Your task to perform on an android device: turn on showing notifications on the lock screen Image 0: 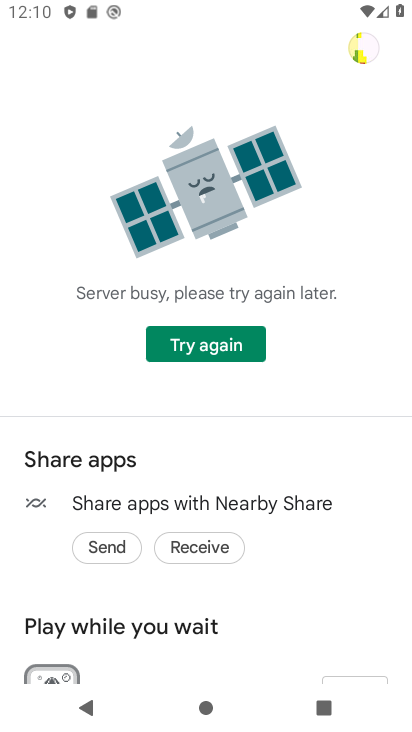
Step 0: press home button
Your task to perform on an android device: turn on showing notifications on the lock screen Image 1: 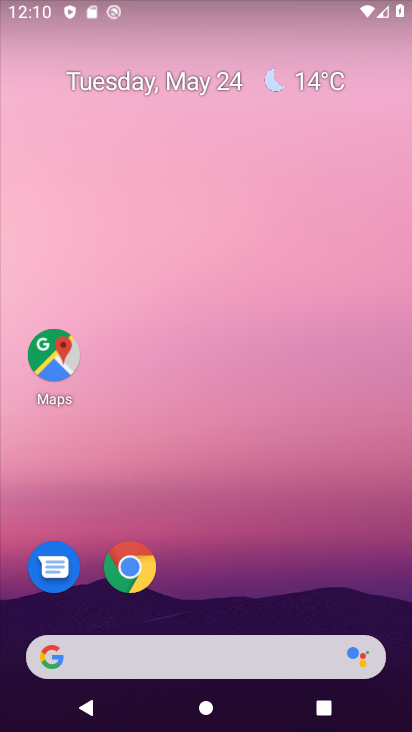
Step 1: drag from (238, 652) to (230, 162)
Your task to perform on an android device: turn on showing notifications on the lock screen Image 2: 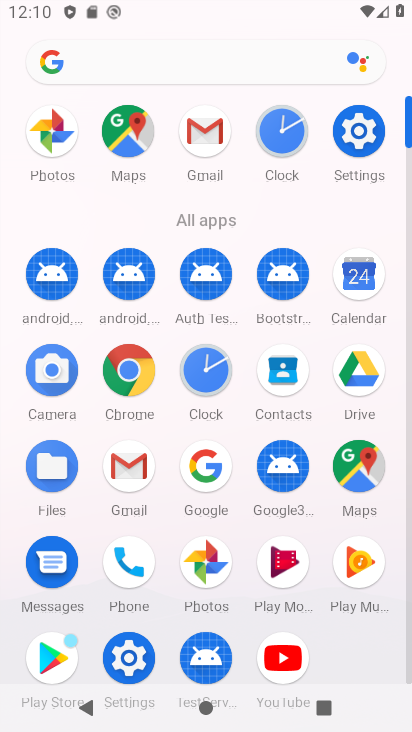
Step 2: click (357, 134)
Your task to perform on an android device: turn on showing notifications on the lock screen Image 3: 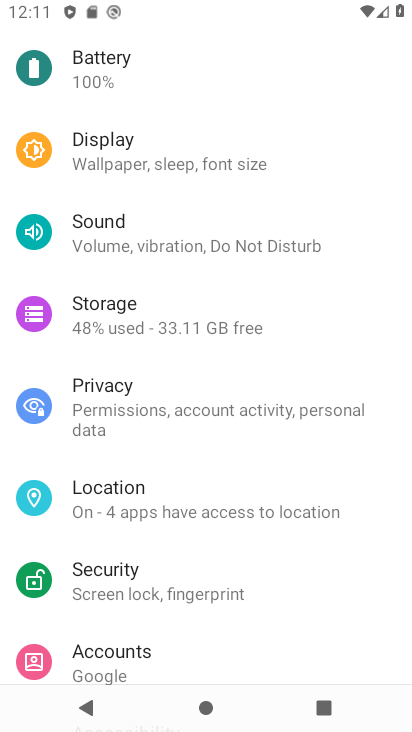
Step 3: drag from (143, 163) to (176, 378)
Your task to perform on an android device: turn on showing notifications on the lock screen Image 4: 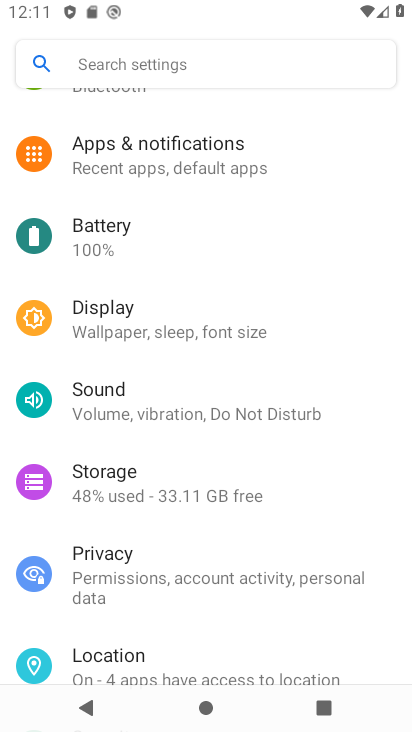
Step 4: click (160, 167)
Your task to perform on an android device: turn on showing notifications on the lock screen Image 5: 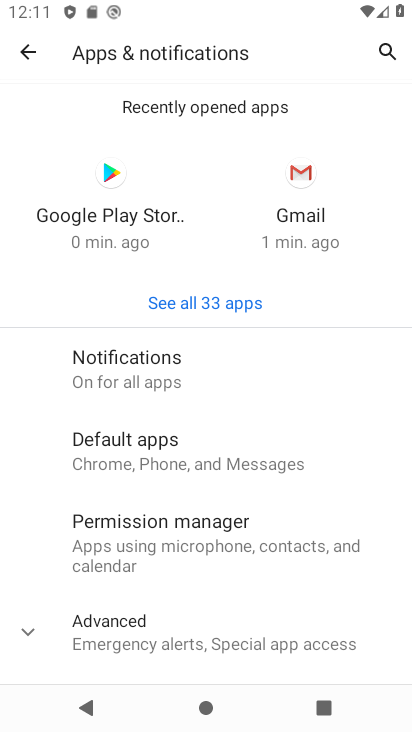
Step 5: click (181, 368)
Your task to perform on an android device: turn on showing notifications on the lock screen Image 6: 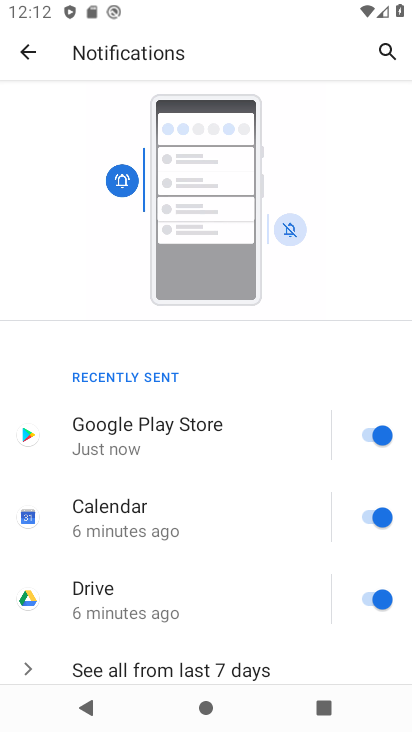
Step 6: drag from (215, 630) to (154, 238)
Your task to perform on an android device: turn on showing notifications on the lock screen Image 7: 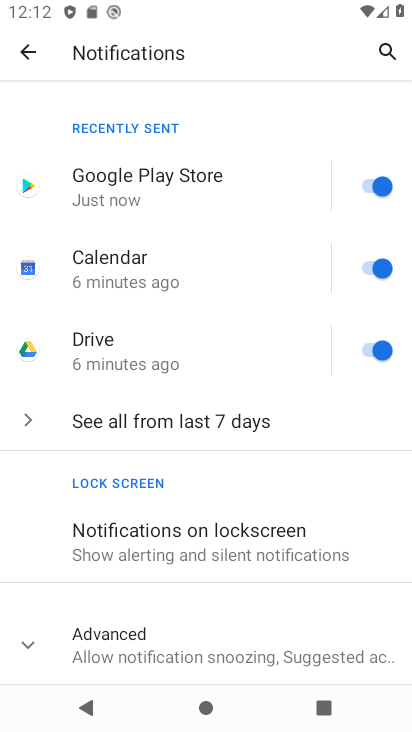
Step 7: click (198, 539)
Your task to perform on an android device: turn on showing notifications on the lock screen Image 8: 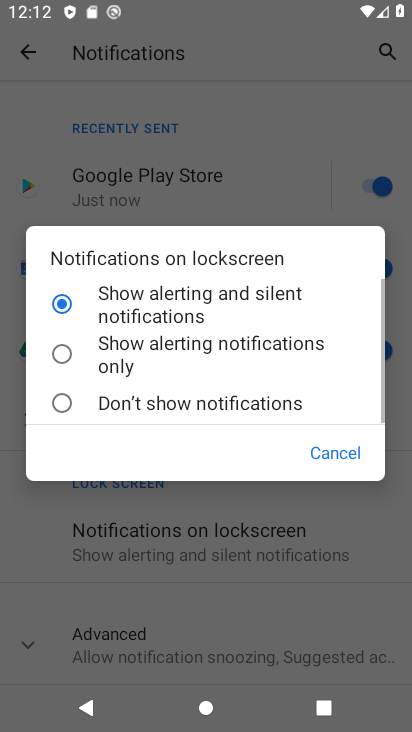
Step 8: click (191, 301)
Your task to perform on an android device: turn on showing notifications on the lock screen Image 9: 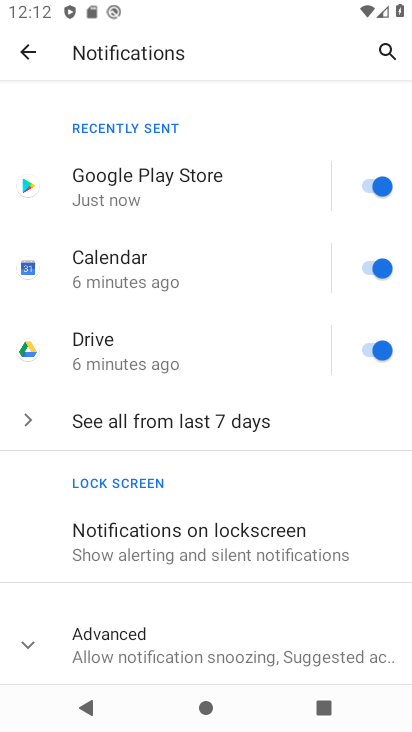
Step 9: task complete